Your task to perform on an android device: check google app version Image 0: 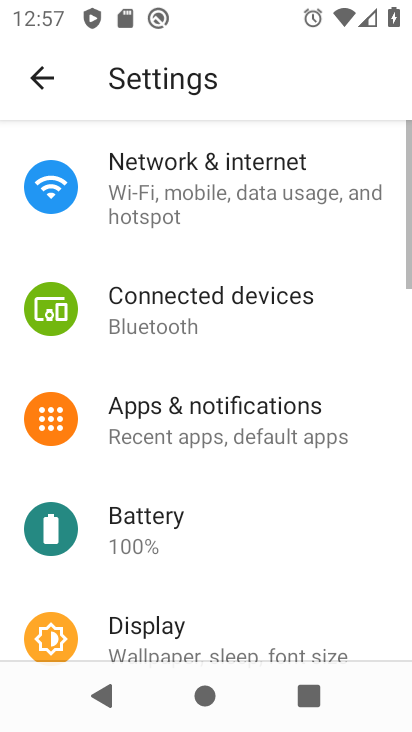
Step 0: press home button
Your task to perform on an android device: check google app version Image 1: 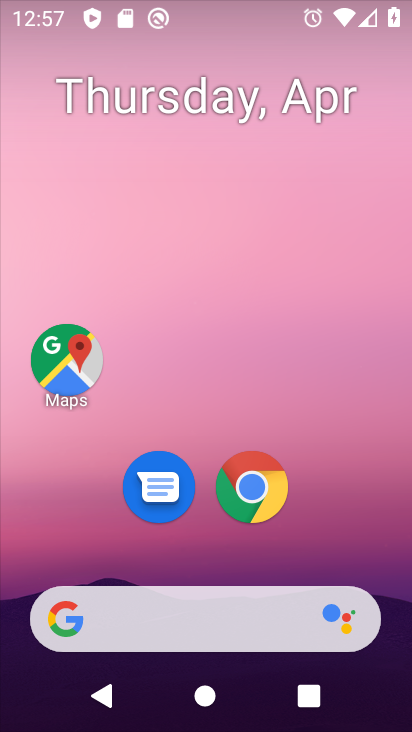
Step 1: drag from (258, 441) to (216, 132)
Your task to perform on an android device: check google app version Image 2: 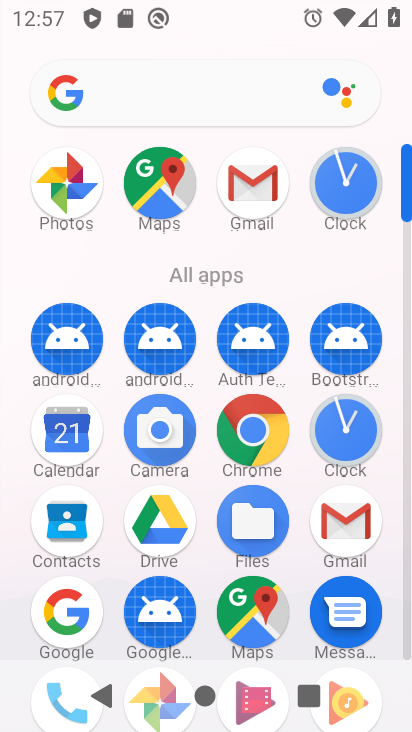
Step 2: click (70, 598)
Your task to perform on an android device: check google app version Image 3: 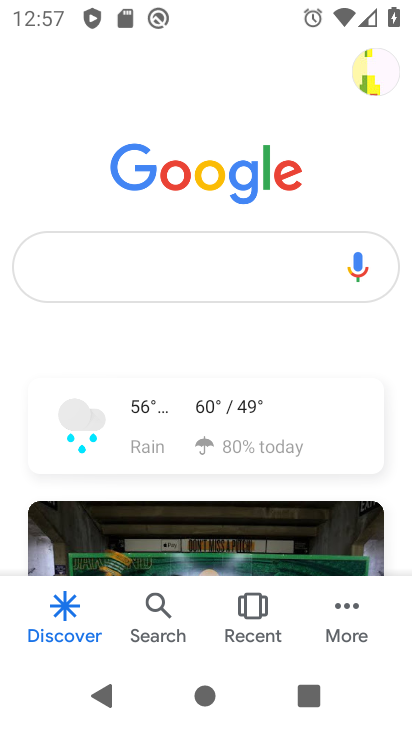
Step 3: click (343, 610)
Your task to perform on an android device: check google app version Image 4: 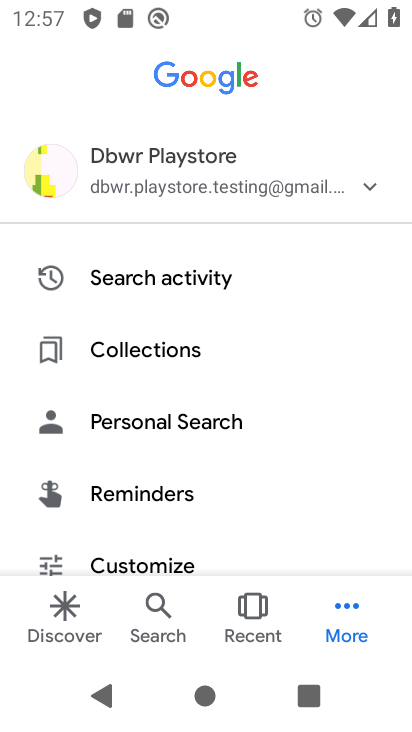
Step 4: drag from (157, 560) to (156, 95)
Your task to perform on an android device: check google app version Image 5: 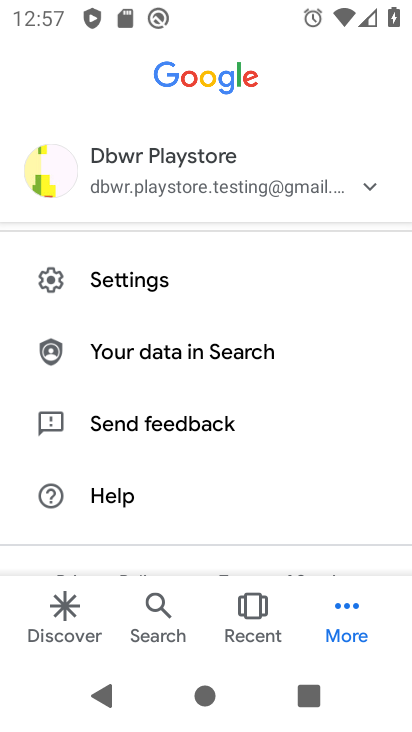
Step 5: click (131, 282)
Your task to perform on an android device: check google app version Image 6: 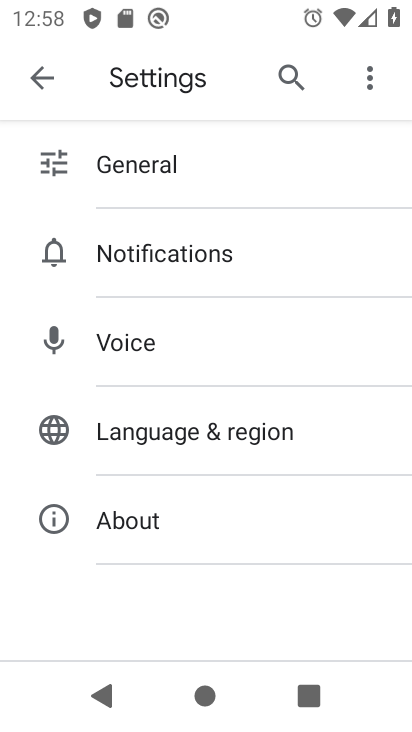
Step 6: click (139, 516)
Your task to perform on an android device: check google app version Image 7: 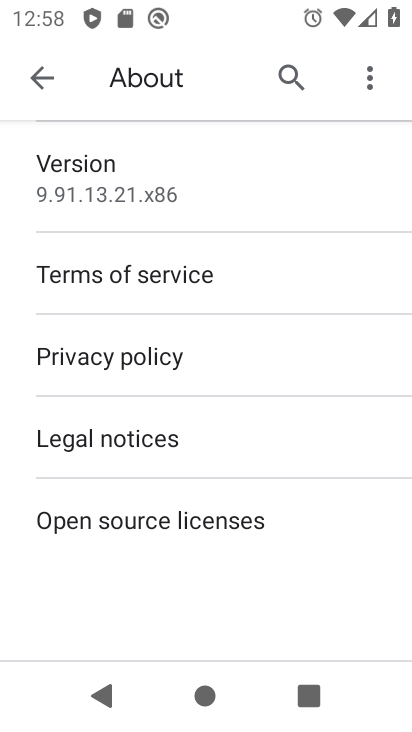
Step 7: click (130, 196)
Your task to perform on an android device: check google app version Image 8: 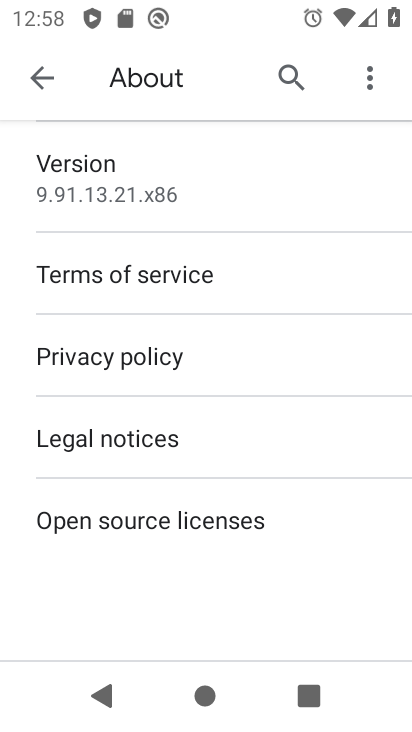
Step 8: task complete